Your task to perform on an android device: Play the last video I watched on Youtube Image 0: 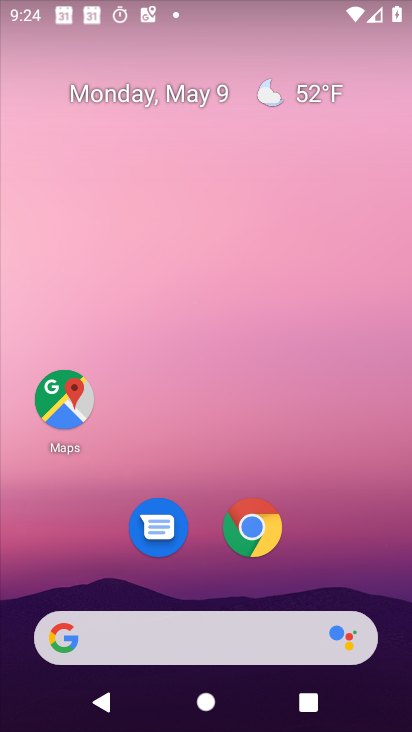
Step 0: drag from (339, 540) to (325, 151)
Your task to perform on an android device: Play the last video I watched on Youtube Image 1: 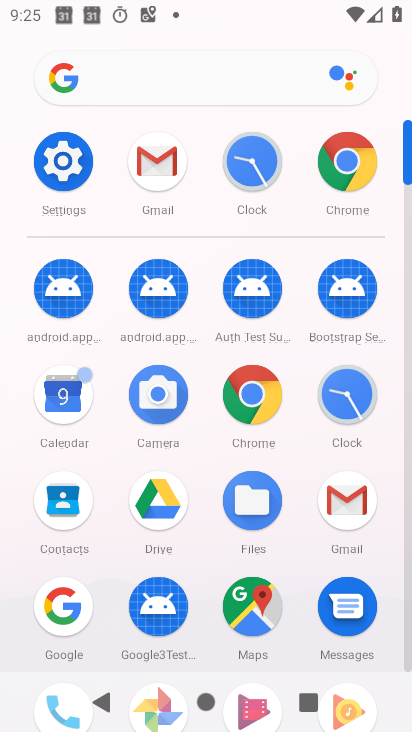
Step 1: drag from (201, 635) to (209, 262)
Your task to perform on an android device: Play the last video I watched on Youtube Image 2: 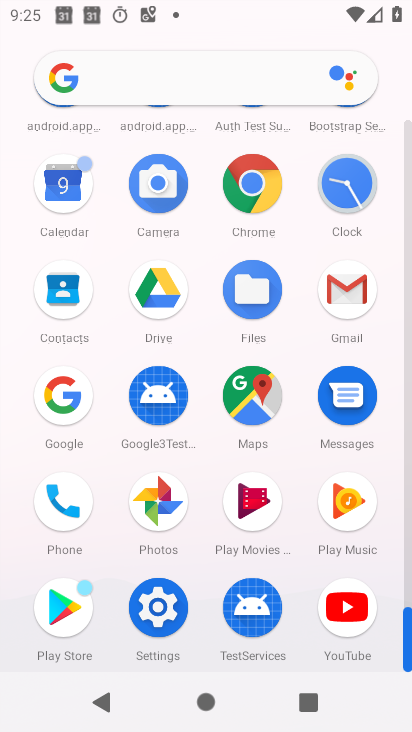
Step 2: click (341, 626)
Your task to perform on an android device: Play the last video I watched on Youtube Image 3: 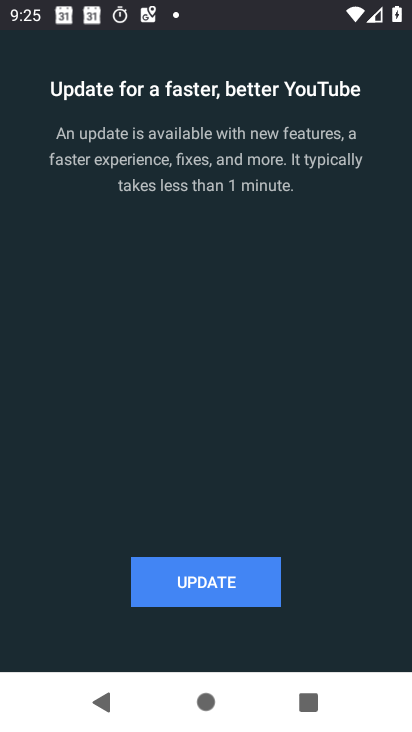
Step 3: click (248, 596)
Your task to perform on an android device: Play the last video I watched on Youtube Image 4: 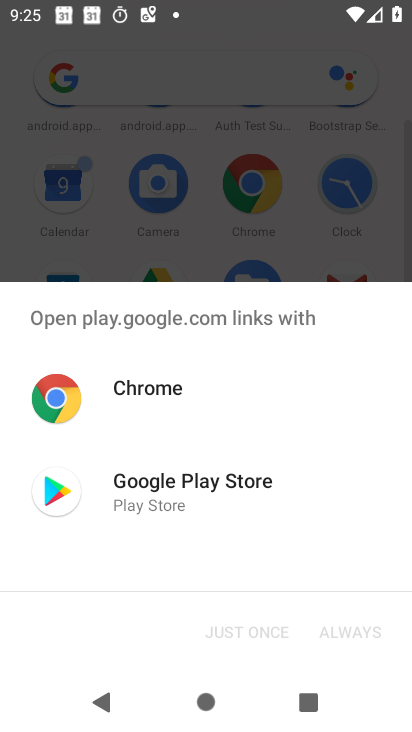
Step 4: click (213, 472)
Your task to perform on an android device: Play the last video I watched on Youtube Image 5: 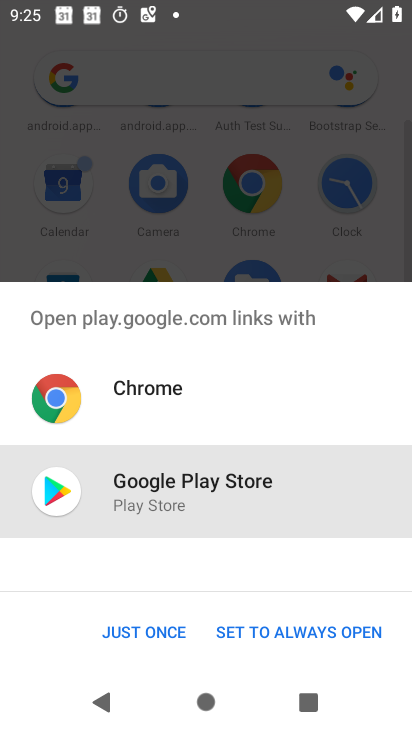
Step 5: click (164, 629)
Your task to perform on an android device: Play the last video I watched on Youtube Image 6: 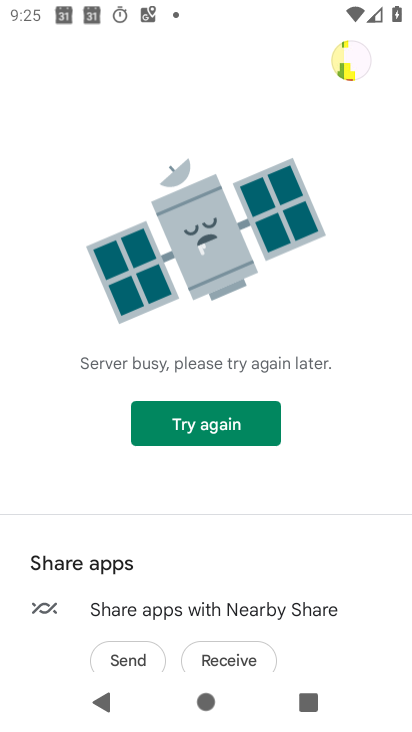
Step 6: task complete